Your task to perform on an android device: delete a single message in the gmail app Image 0: 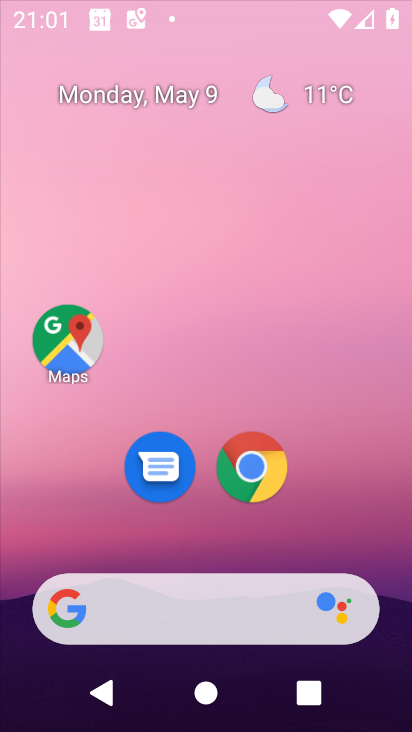
Step 0: drag from (352, 552) to (343, 200)
Your task to perform on an android device: delete a single message in the gmail app Image 1: 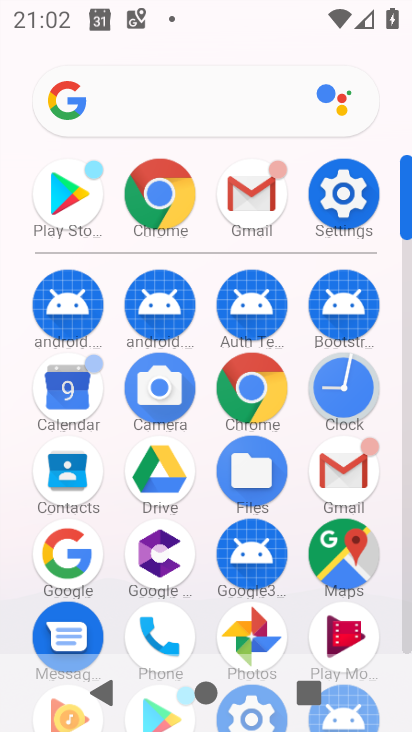
Step 1: click (252, 193)
Your task to perform on an android device: delete a single message in the gmail app Image 2: 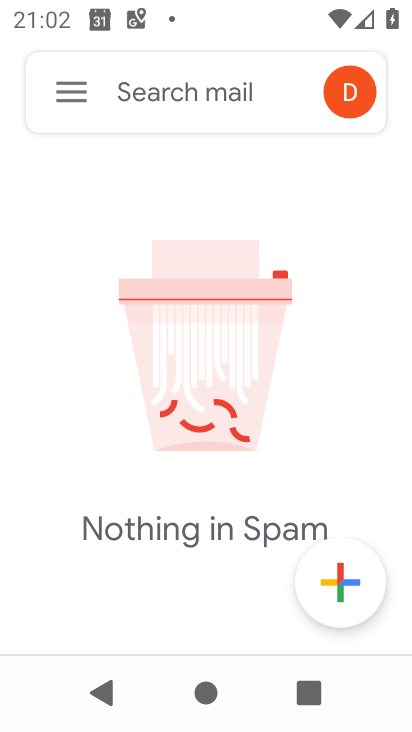
Step 2: click (53, 76)
Your task to perform on an android device: delete a single message in the gmail app Image 3: 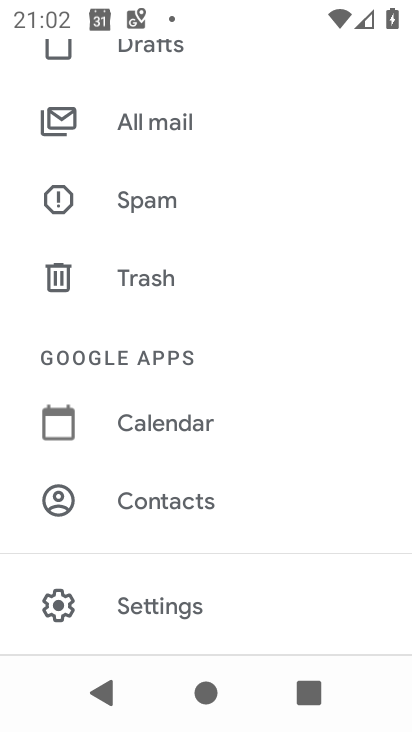
Step 3: click (156, 115)
Your task to perform on an android device: delete a single message in the gmail app Image 4: 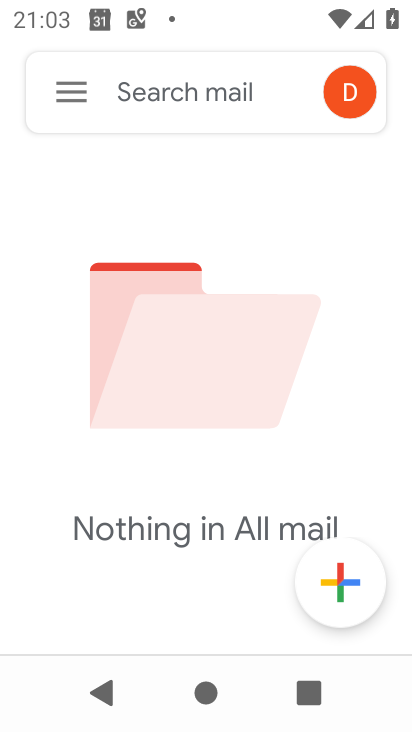
Step 4: task complete